Your task to perform on an android device: See recent photos Image 0: 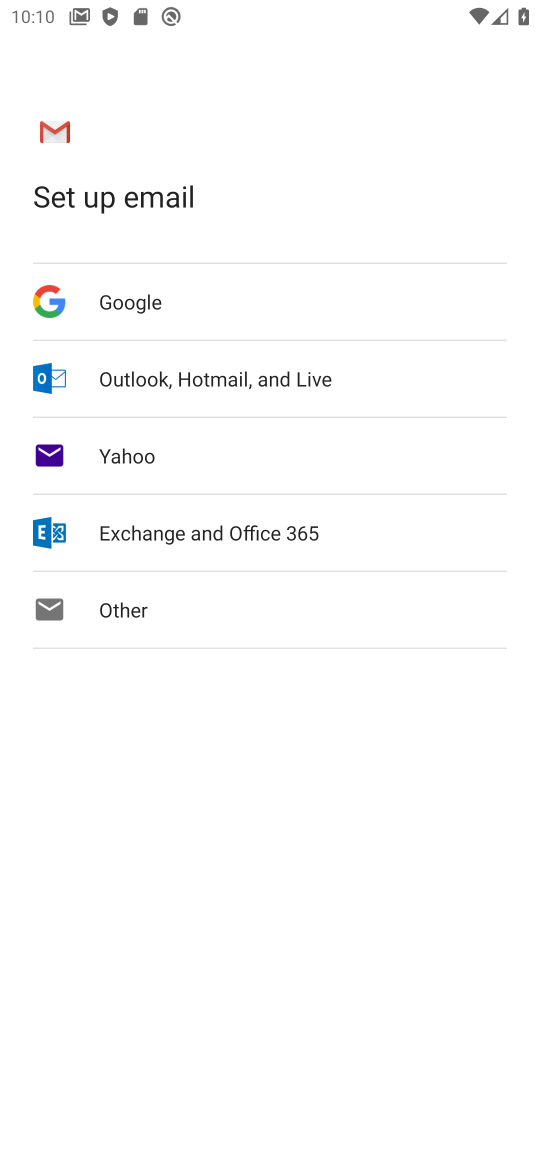
Step 0: press home button
Your task to perform on an android device: See recent photos Image 1: 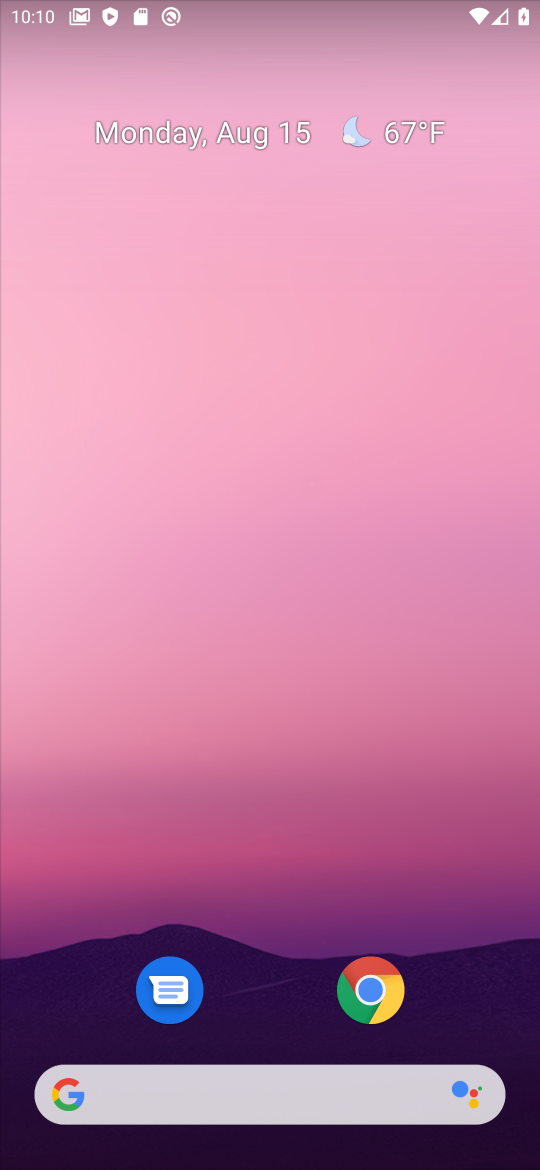
Step 1: drag from (259, 965) to (267, 209)
Your task to perform on an android device: See recent photos Image 2: 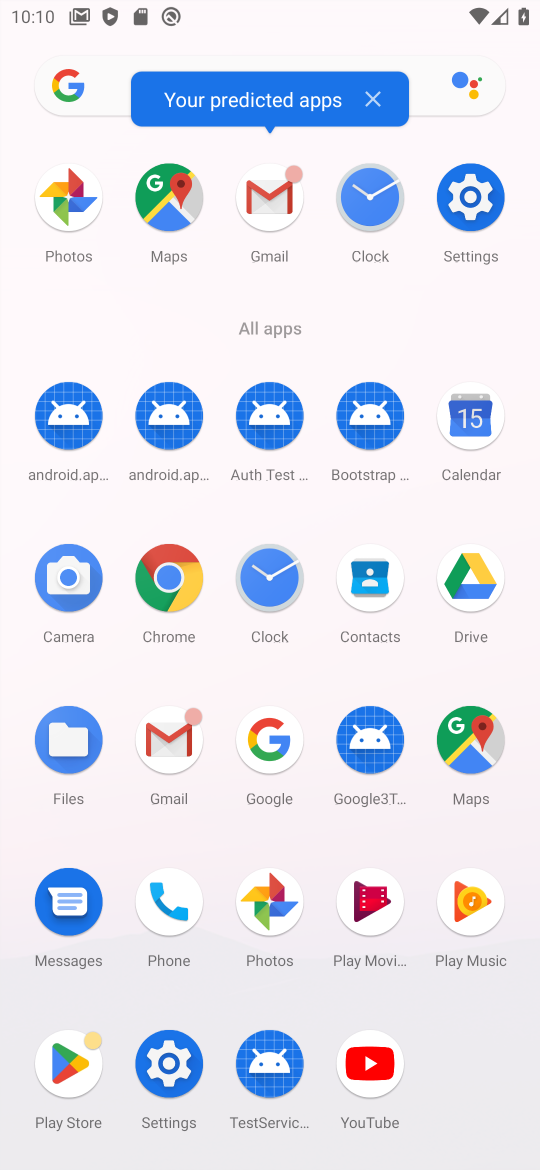
Step 2: click (60, 189)
Your task to perform on an android device: See recent photos Image 3: 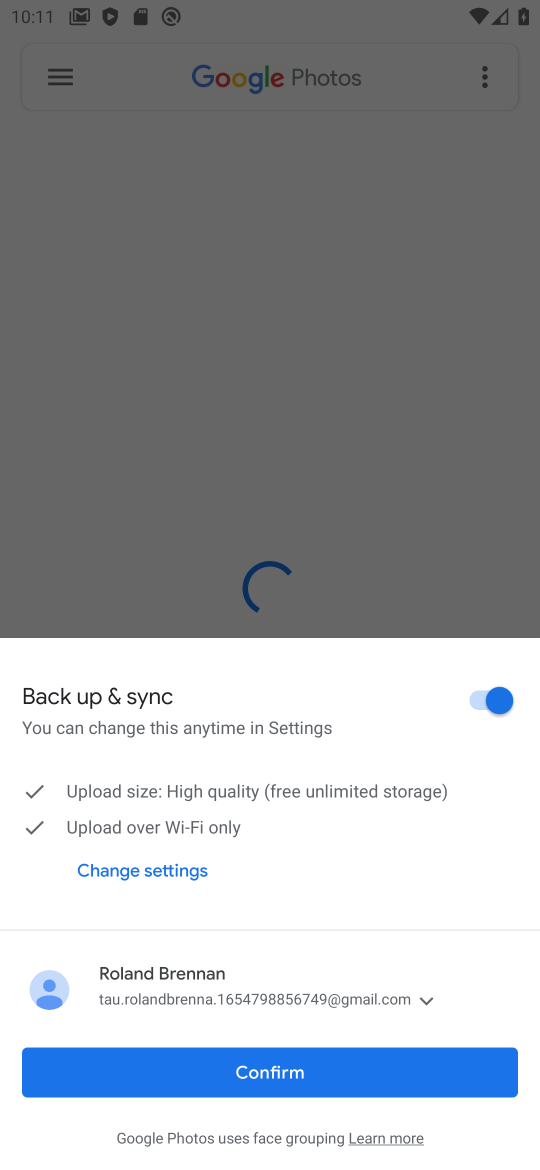
Step 3: click (276, 1076)
Your task to perform on an android device: See recent photos Image 4: 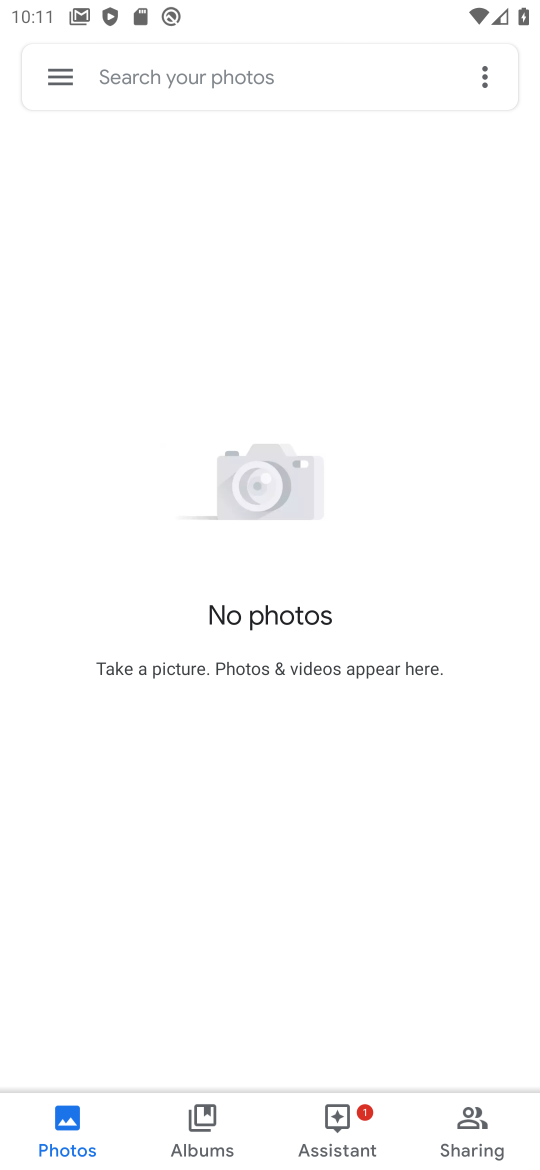
Step 4: task complete